Your task to perform on an android device: add a label to a message in the gmail app Image 0: 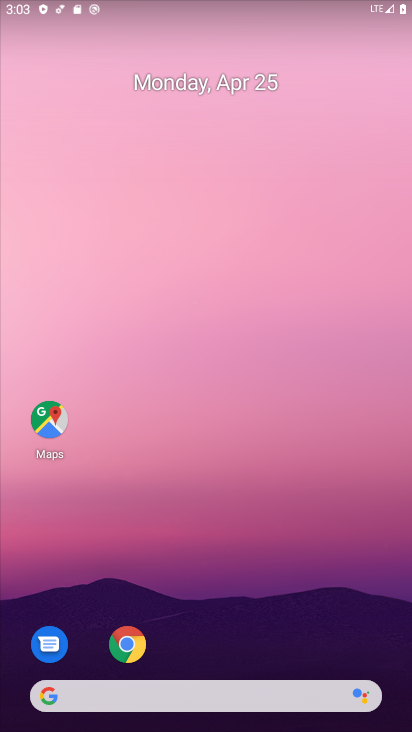
Step 0: drag from (237, 610) to (246, 145)
Your task to perform on an android device: add a label to a message in the gmail app Image 1: 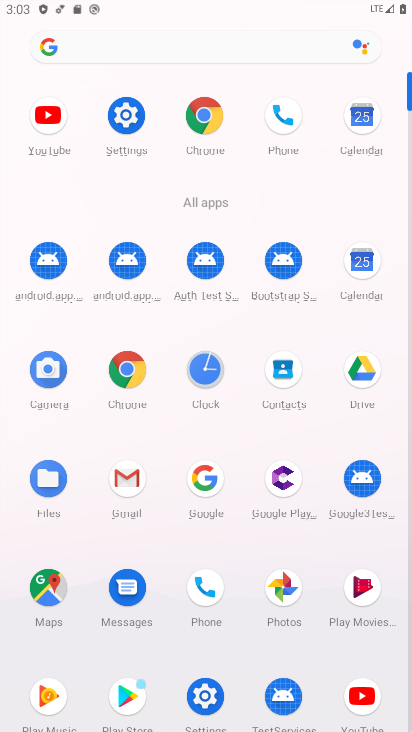
Step 1: click (132, 488)
Your task to perform on an android device: add a label to a message in the gmail app Image 2: 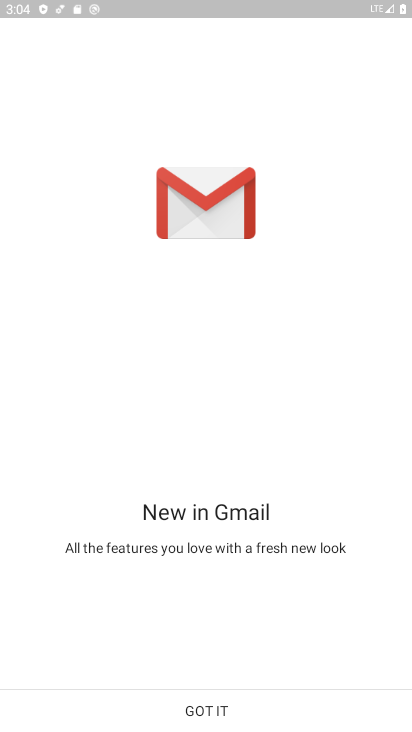
Step 2: click (210, 714)
Your task to perform on an android device: add a label to a message in the gmail app Image 3: 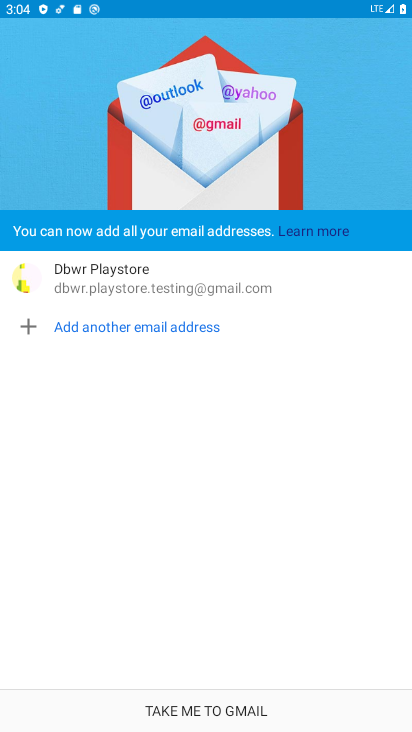
Step 3: click (210, 714)
Your task to perform on an android device: add a label to a message in the gmail app Image 4: 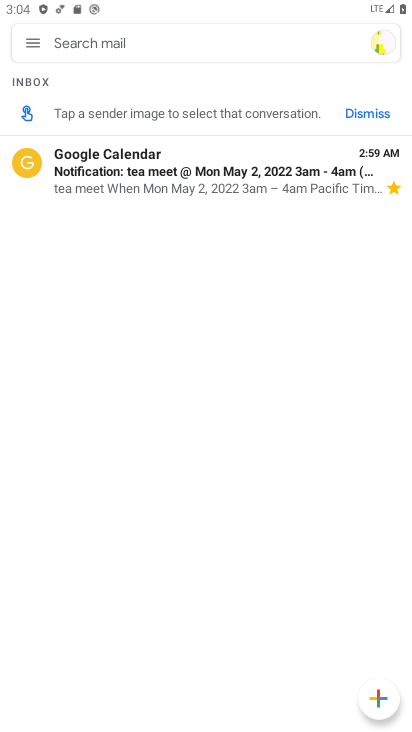
Step 4: click (246, 183)
Your task to perform on an android device: add a label to a message in the gmail app Image 5: 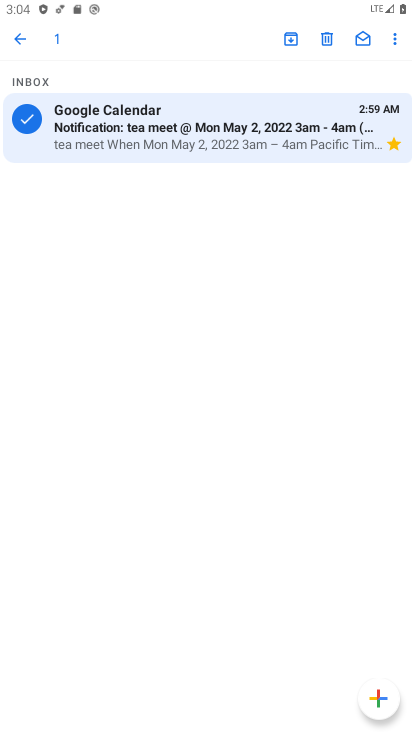
Step 5: click (392, 37)
Your task to perform on an android device: add a label to a message in the gmail app Image 6: 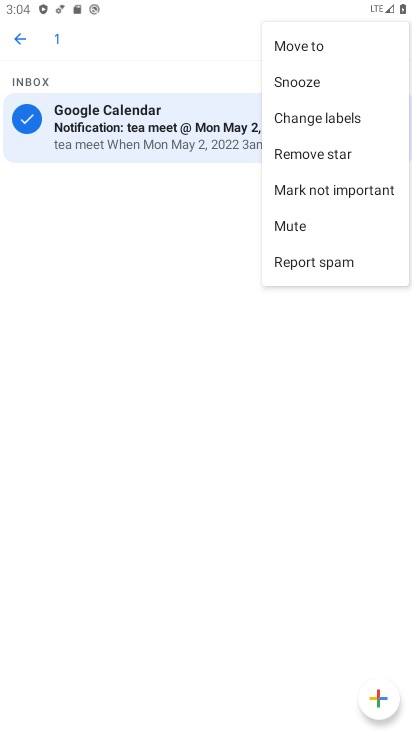
Step 6: click (329, 42)
Your task to perform on an android device: add a label to a message in the gmail app Image 7: 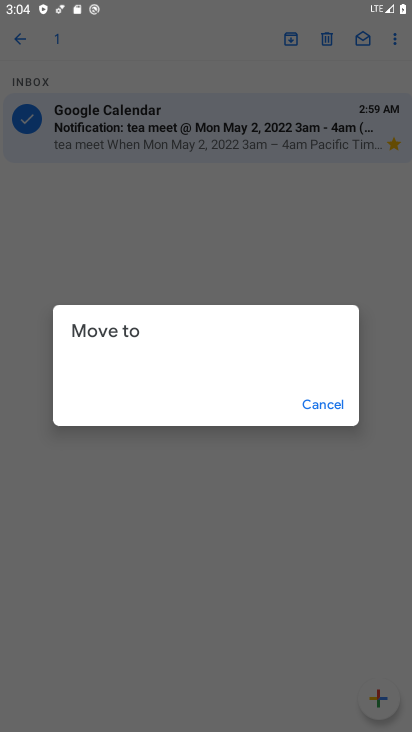
Step 7: click (318, 400)
Your task to perform on an android device: add a label to a message in the gmail app Image 8: 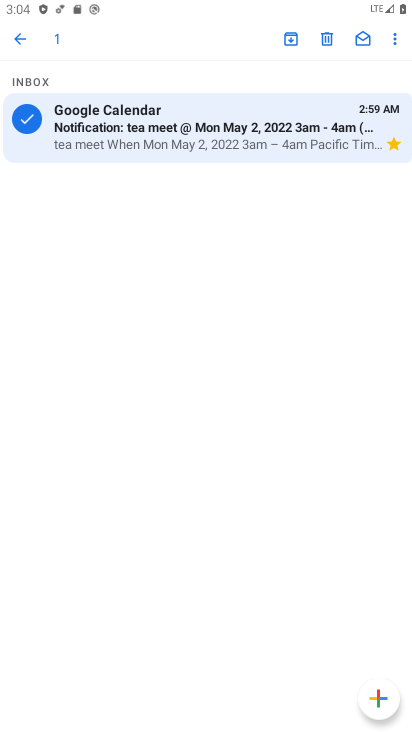
Step 8: click (393, 45)
Your task to perform on an android device: add a label to a message in the gmail app Image 9: 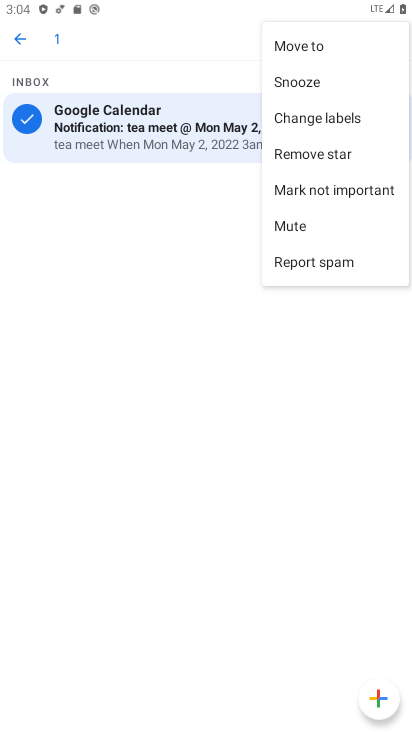
Step 9: click (354, 114)
Your task to perform on an android device: add a label to a message in the gmail app Image 10: 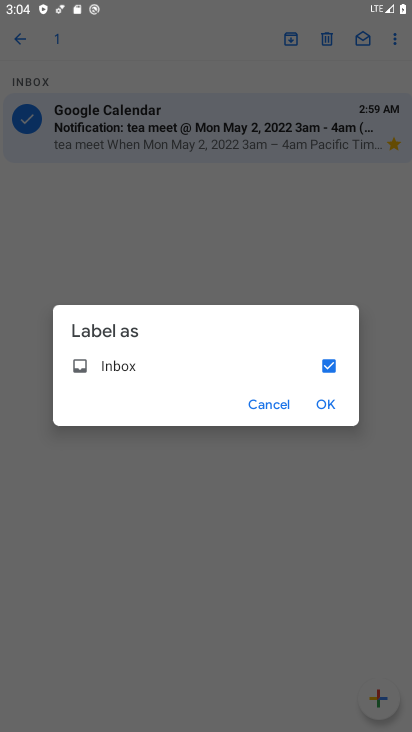
Step 10: click (329, 410)
Your task to perform on an android device: add a label to a message in the gmail app Image 11: 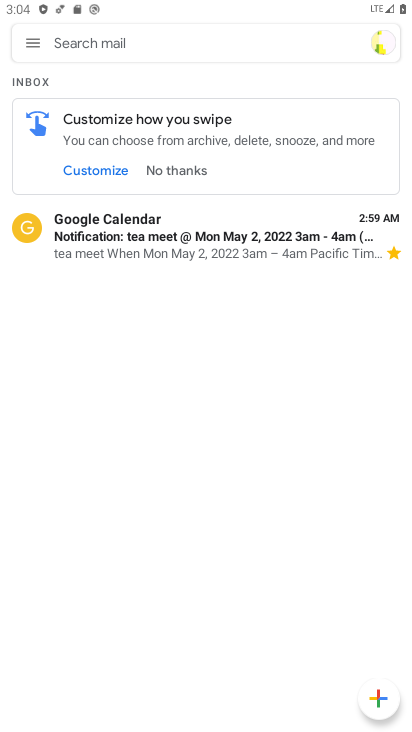
Step 11: task complete